Your task to perform on an android device: Search for alienware aurora on bestbuy, select the first entry, add it to the cart, then select checkout. Image 0: 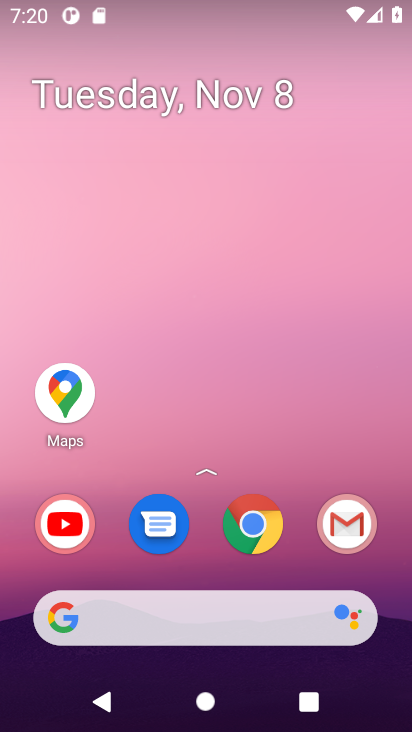
Step 0: click (236, 535)
Your task to perform on an android device: Search for alienware aurora on bestbuy, select the first entry, add it to the cart, then select checkout. Image 1: 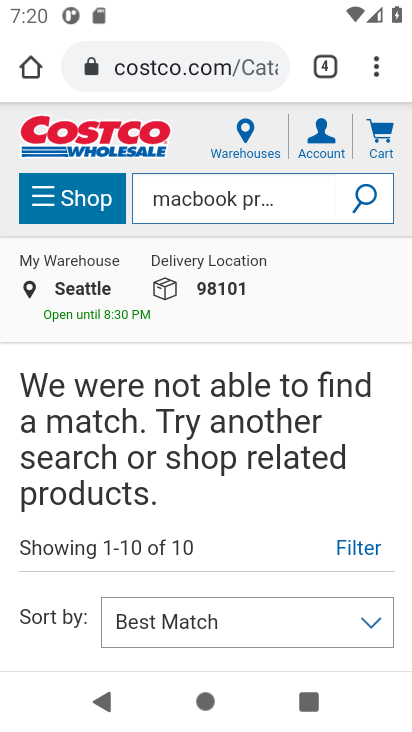
Step 1: click (199, 59)
Your task to perform on an android device: Search for alienware aurora on bestbuy, select the first entry, add it to the cart, then select checkout. Image 2: 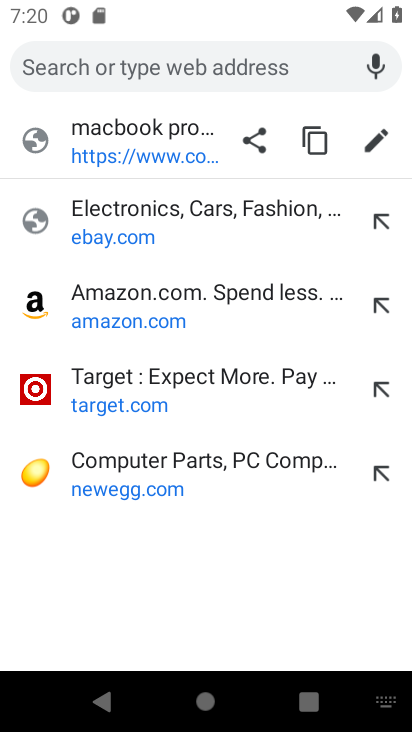
Step 2: type "bestbuy.com"
Your task to perform on an android device: Search for alienware aurora on bestbuy, select the first entry, add it to the cart, then select checkout. Image 3: 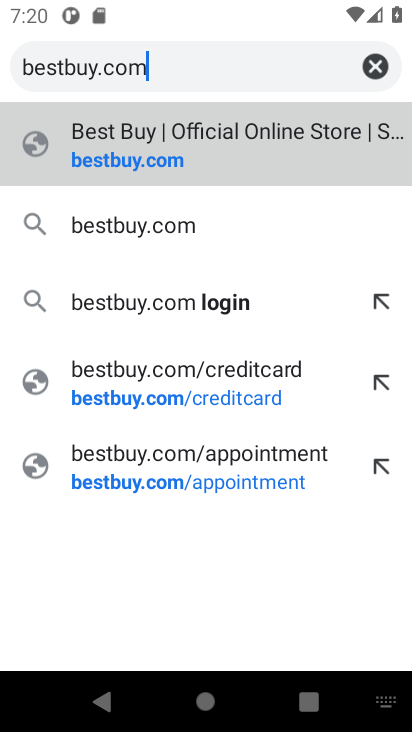
Step 3: click (119, 161)
Your task to perform on an android device: Search for alienware aurora on bestbuy, select the first entry, add it to the cart, then select checkout. Image 4: 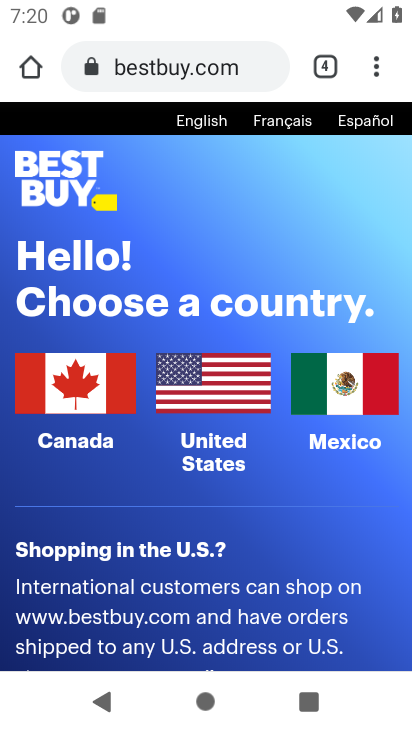
Step 4: click (192, 402)
Your task to perform on an android device: Search for alienware aurora on bestbuy, select the first entry, add it to the cart, then select checkout. Image 5: 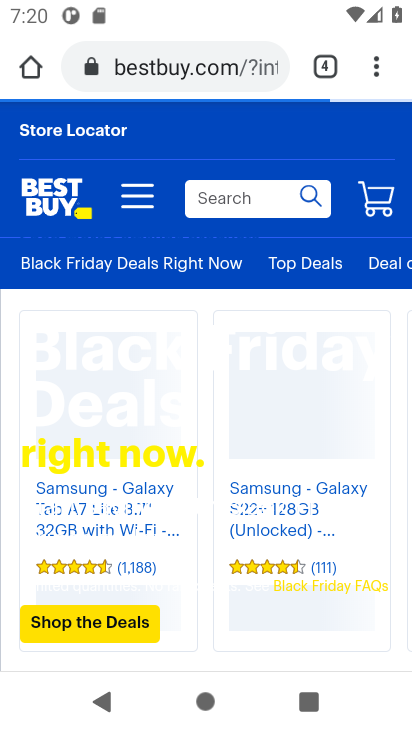
Step 5: click (221, 205)
Your task to perform on an android device: Search for alienware aurora on bestbuy, select the first entry, add it to the cart, then select checkout. Image 6: 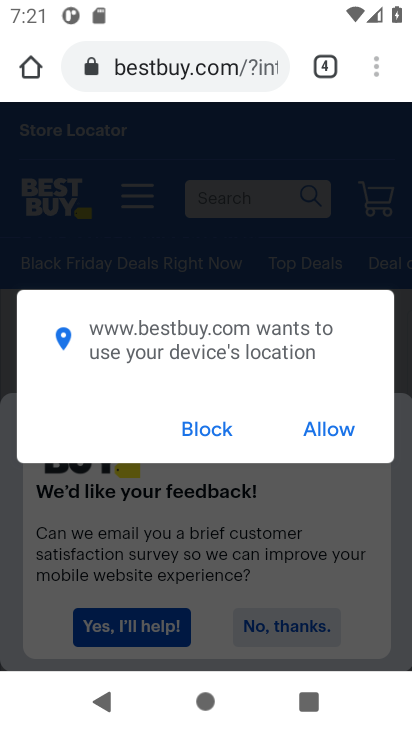
Step 6: type "alienware aurora "
Your task to perform on an android device: Search for alienware aurora on bestbuy, select the first entry, add it to the cart, then select checkout. Image 7: 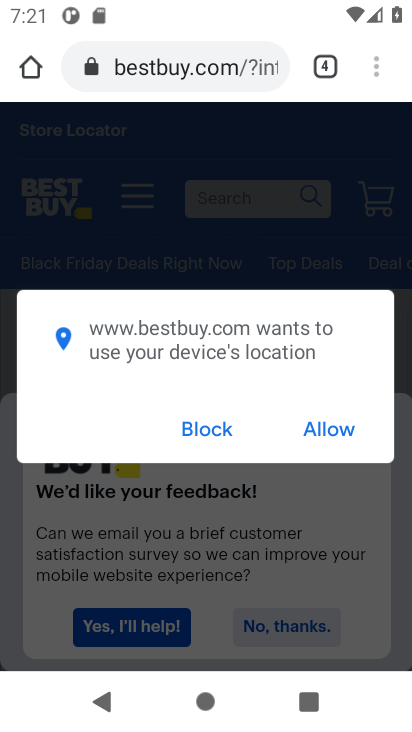
Step 7: click (207, 428)
Your task to perform on an android device: Search for alienware aurora on bestbuy, select the first entry, add it to the cart, then select checkout. Image 8: 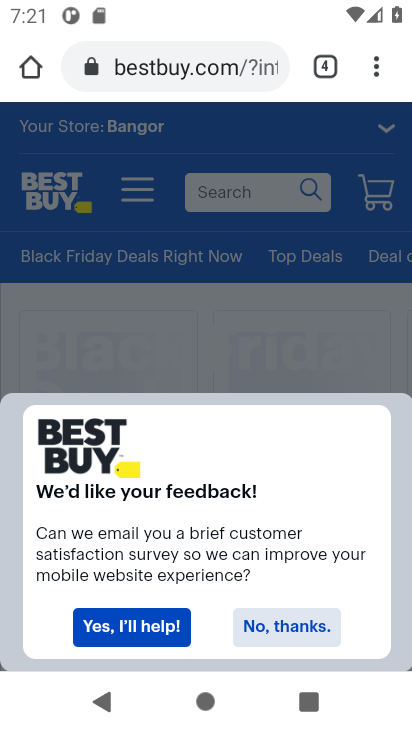
Step 8: click (210, 191)
Your task to perform on an android device: Search for alienware aurora on bestbuy, select the first entry, add it to the cart, then select checkout. Image 9: 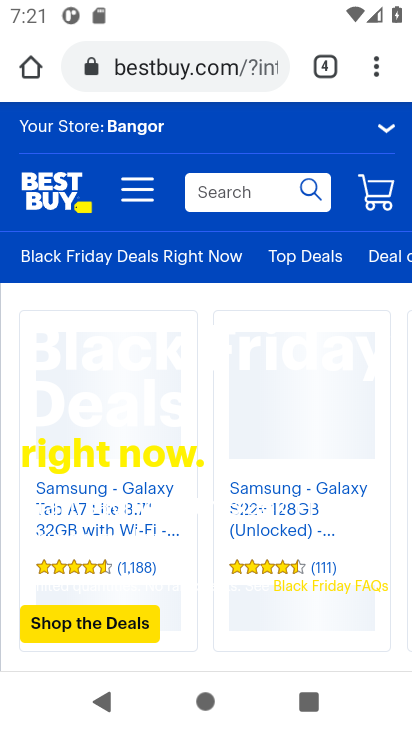
Step 9: click (197, 181)
Your task to perform on an android device: Search for alienware aurora on bestbuy, select the first entry, add it to the cart, then select checkout. Image 10: 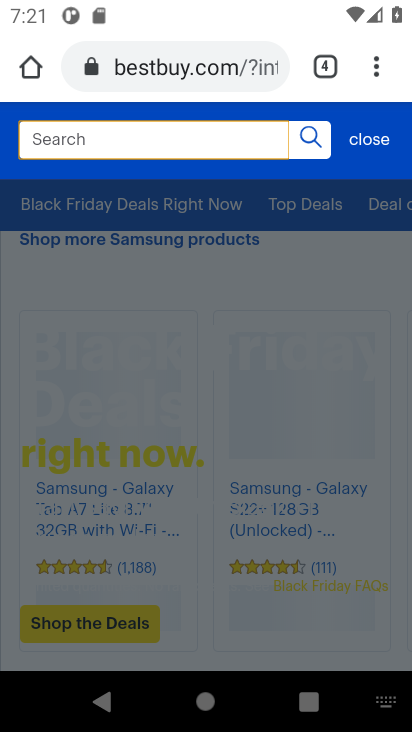
Step 10: type "alienware aurora "
Your task to perform on an android device: Search for alienware aurora on bestbuy, select the first entry, add it to the cart, then select checkout. Image 11: 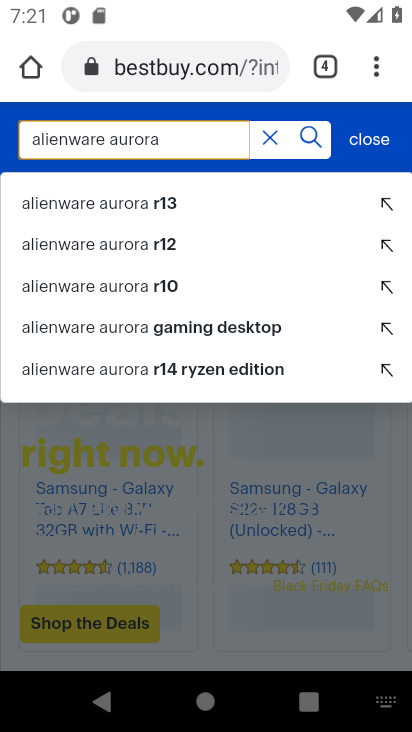
Step 11: click (302, 135)
Your task to perform on an android device: Search for alienware aurora on bestbuy, select the first entry, add it to the cart, then select checkout. Image 12: 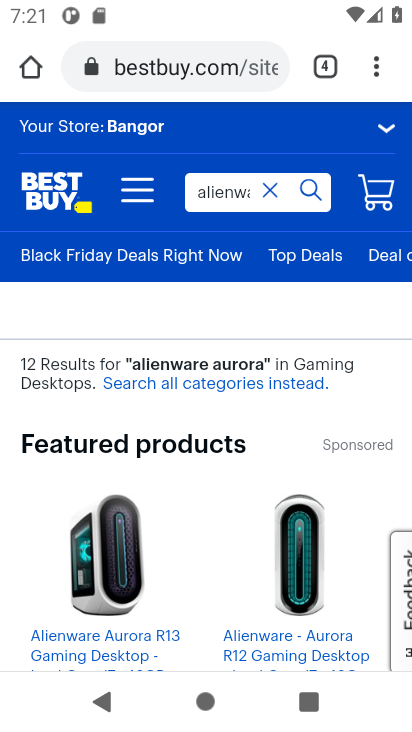
Step 12: click (99, 572)
Your task to perform on an android device: Search for alienware aurora on bestbuy, select the first entry, add it to the cart, then select checkout. Image 13: 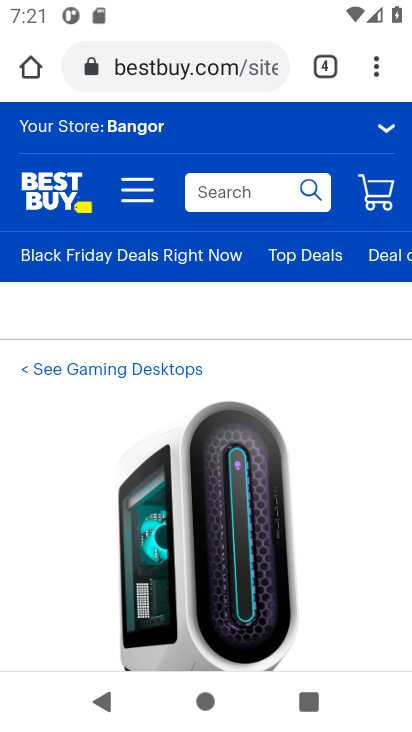
Step 13: drag from (201, 581) to (183, 111)
Your task to perform on an android device: Search for alienware aurora on bestbuy, select the first entry, add it to the cart, then select checkout. Image 14: 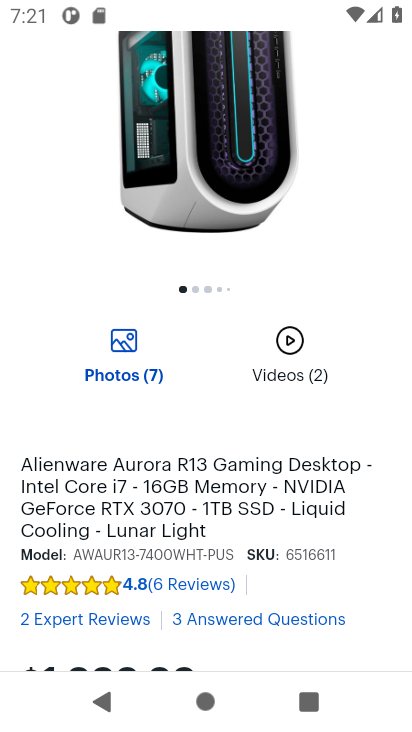
Step 14: drag from (188, 514) to (176, 190)
Your task to perform on an android device: Search for alienware aurora on bestbuy, select the first entry, add it to the cart, then select checkout. Image 15: 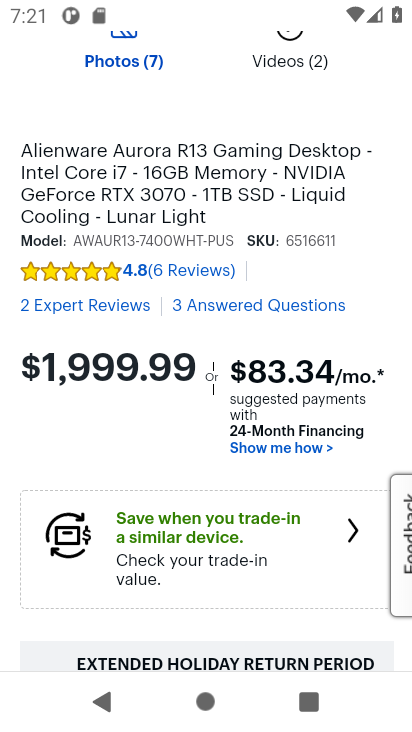
Step 15: drag from (175, 533) to (181, 233)
Your task to perform on an android device: Search for alienware aurora on bestbuy, select the first entry, add it to the cart, then select checkout. Image 16: 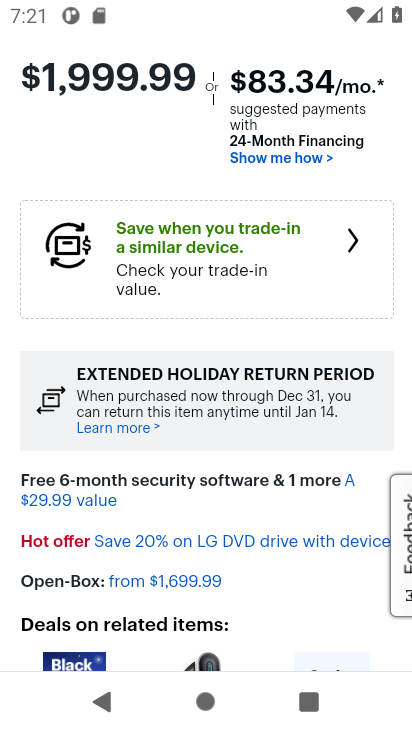
Step 16: drag from (178, 543) to (175, 229)
Your task to perform on an android device: Search for alienware aurora on bestbuy, select the first entry, add it to the cart, then select checkout. Image 17: 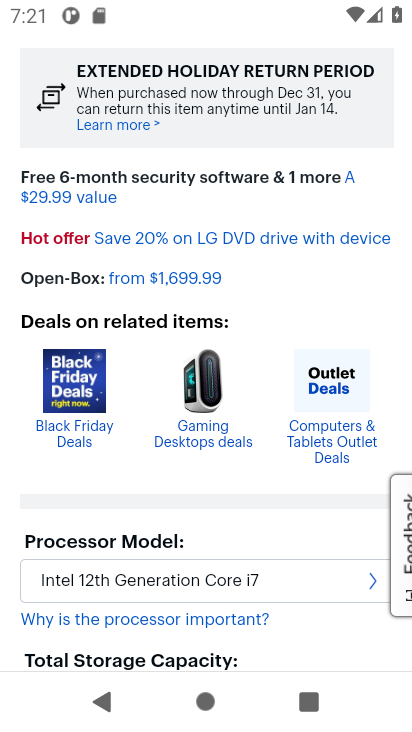
Step 17: drag from (197, 527) to (205, 284)
Your task to perform on an android device: Search for alienware aurora on bestbuy, select the first entry, add it to the cart, then select checkout. Image 18: 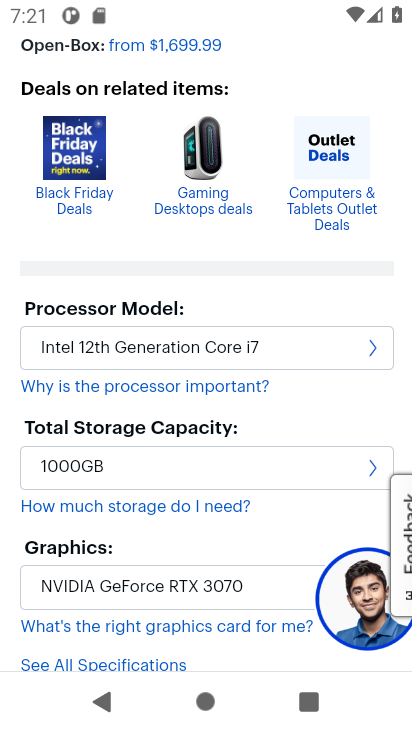
Step 18: drag from (199, 519) to (186, 161)
Your task to perform on an android device: Search for alienware aurora on bestbuy, select the first entry, add it to the cart, then select checkout. Image 19: 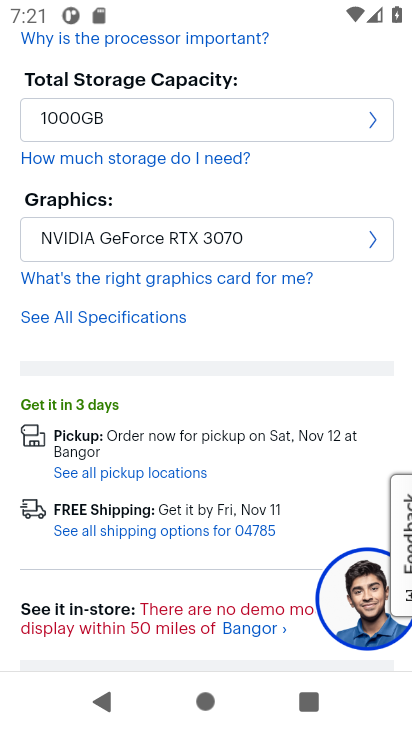
Step 19: drag from (196, 490) to (186, 209)
Your task to perform on an android device: Search for alienware aurora on bestbuy, select the first entry, add it to the cart, then select checkout. Image 20: 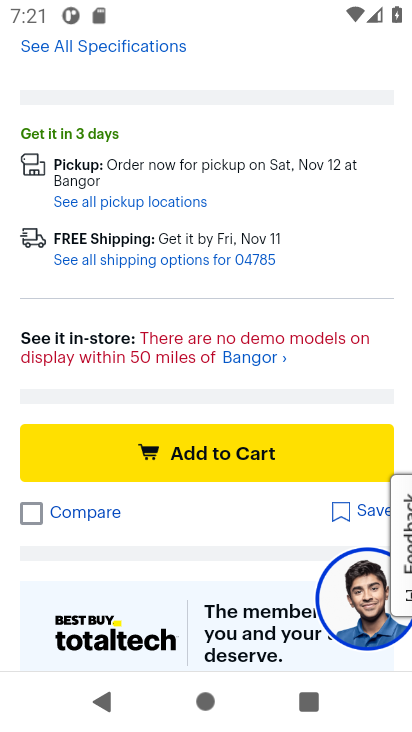
Step 20: click (206, 448)
Your task to perform on an android device: Search for alienware aurora on bestbuy, select the first entry, add it to the cart, then select checkout. Image 21: 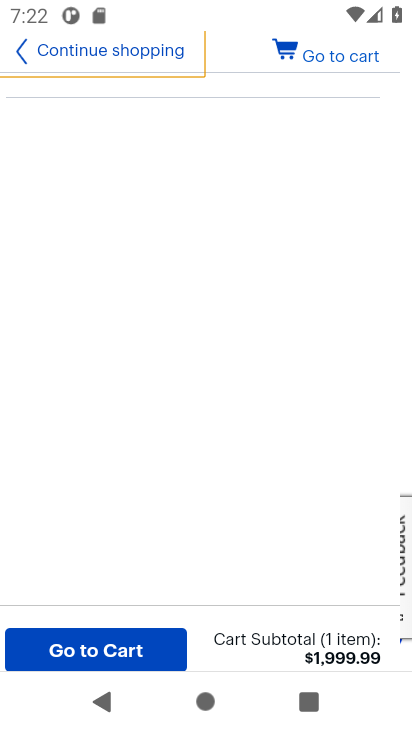
Step 21: click (341, 62)
Your task to perform on an android device: Search for alienware aurora on bestbuy, select the first entry, add it to the cart, then select checkout. Image 22: 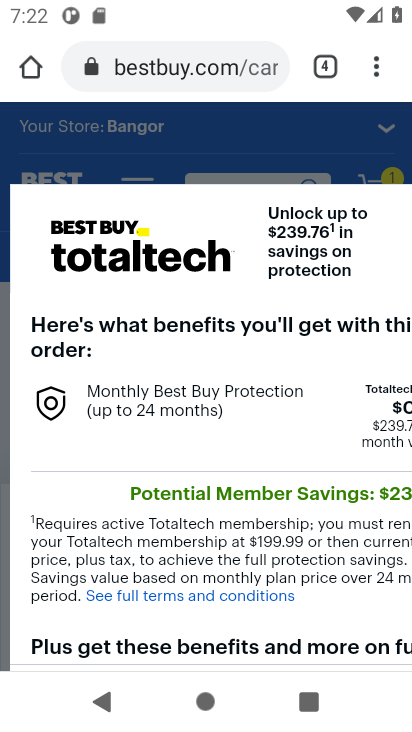
Step 22: drag from (348, 302) to (148, 309)
Your task to perform on an android device: Search for alienware aurora on bestbuy, select the first entry, add it to the cart, then select checkout. Image 23: 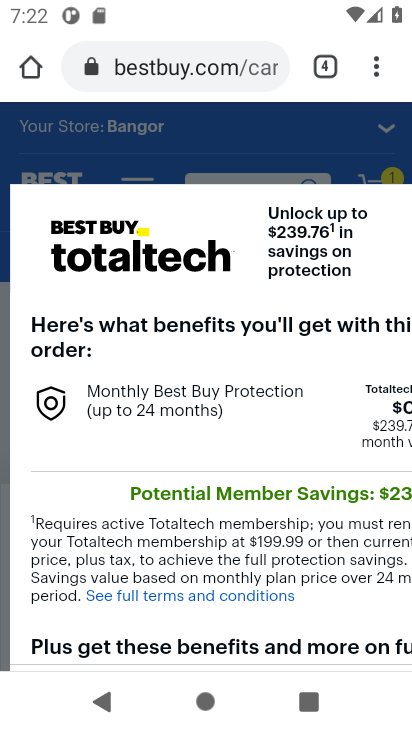
Step 23: drag from (387, 210) to (230, 245)
Your task to perform on an android device: Search for alienware aurora on bestbuy, select the first entry, add it to the cart, then select checkout. Image 24: 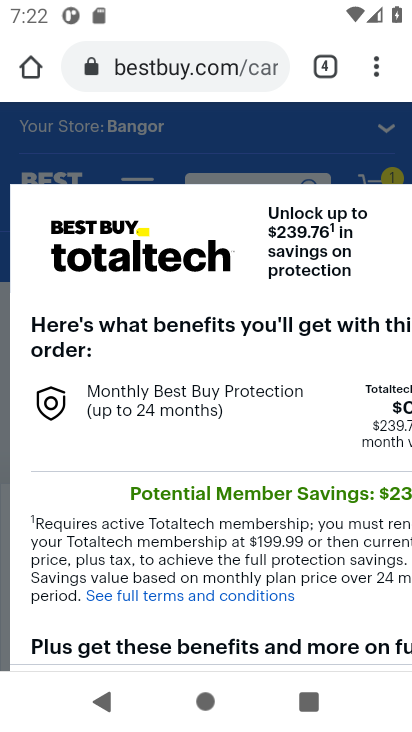
Step 24: drag from (375, 257) to (102, 286)
Your task to perform on an android device: Search for alienware aurora on bestbuy, select the first entry, add it to the cart, then select checkout. Image 25: 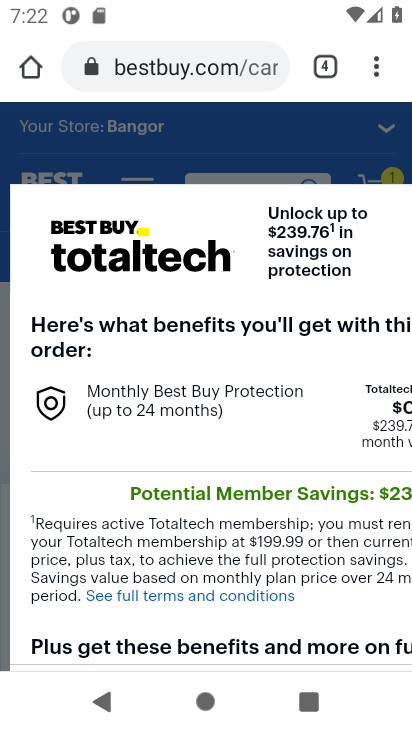
Step 25: drag from (214, 203) to (119, 214)
Your task to perform on an android device: Search for alienware aurora on bestbuy, select the first entry, add it to the cart, then select checkout. Image 26: 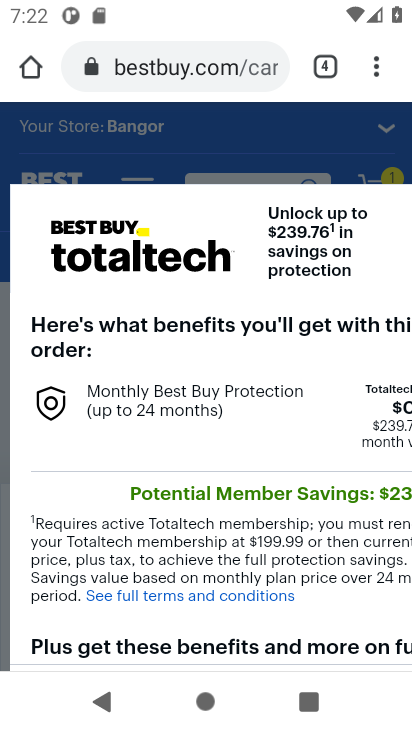
Step 26: drag from (376, 249) to (187, 259)
Your task to perform on an android device: Search for alienware aurora on bestbuy, select the first entry, add it to the cart, then select checkout. Image 27: 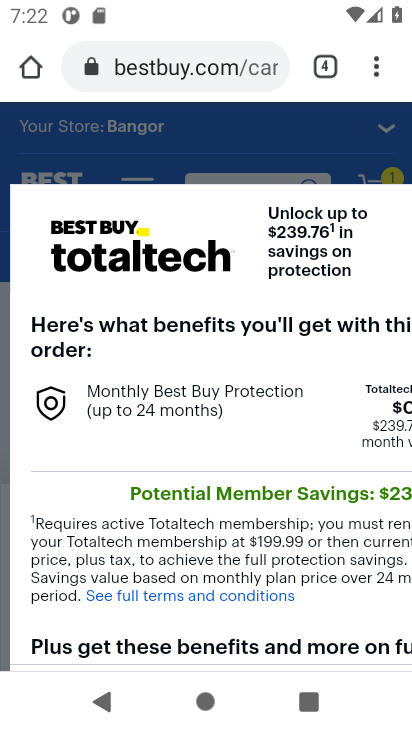
Step 27: click (396, 197)
Your task to perform on an android device: Search for alienware aurora on bestbuy, select the first entry, add it to the cart, then select checkout. Image 28: 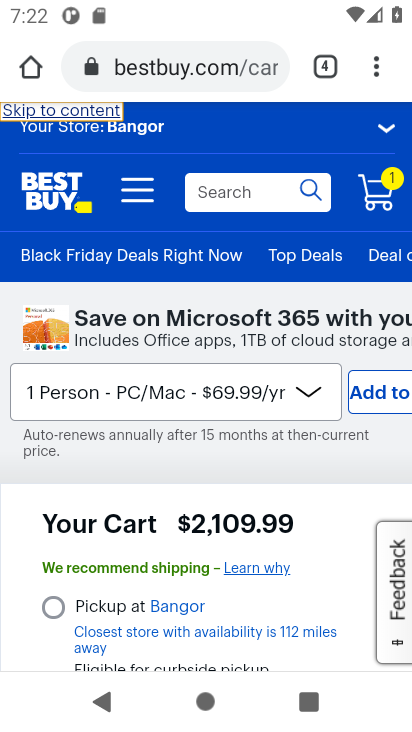
Step 28: click (379, 188)
Your task to perform on an android device: Search for alienware aurora on bestbuy, select the first entry, add it to the cart, then select checkout. Image 29: 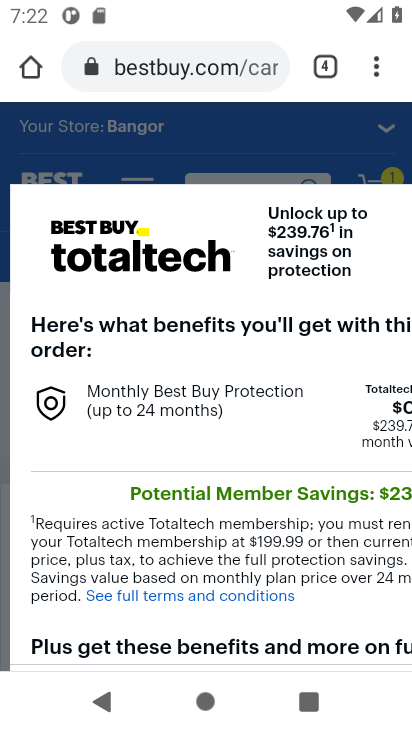
Step 29: drag from (364, 267) to (210, 287)
Your task to perform on an android device: Search for alienware aurora on bestbuy, select the first entry, add it to the cart, then select checkout. Image 30: 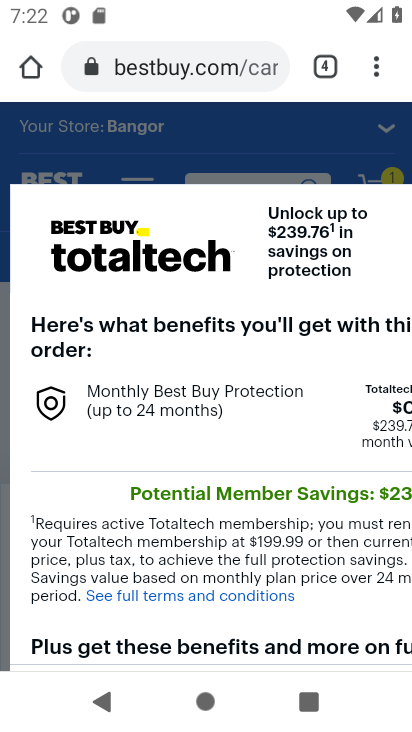
Step 30: drag from (300, 468) to (19, 453)
Your task to perform on an android device: Search for alienware aurora on bestbuy, select the first entry, add it to the cart, then select checkout. Image 31: 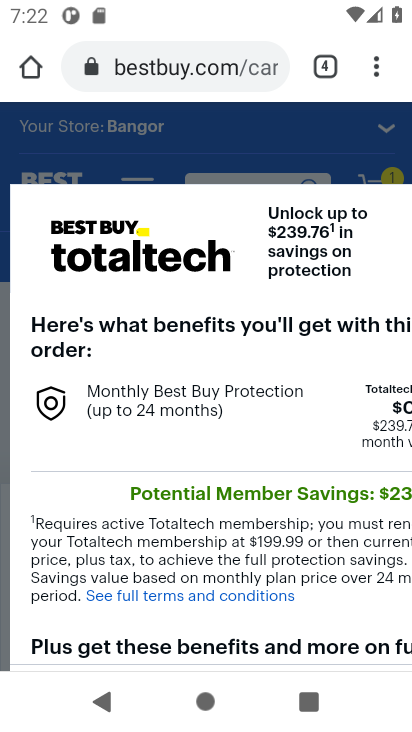
Step 31: drag from (350, 600) to (22, 515)
Your task to perform on an android device: Search for alienware aurora on bestbuy, select the first entry, add it to the cart, then select checkout. Image 32: 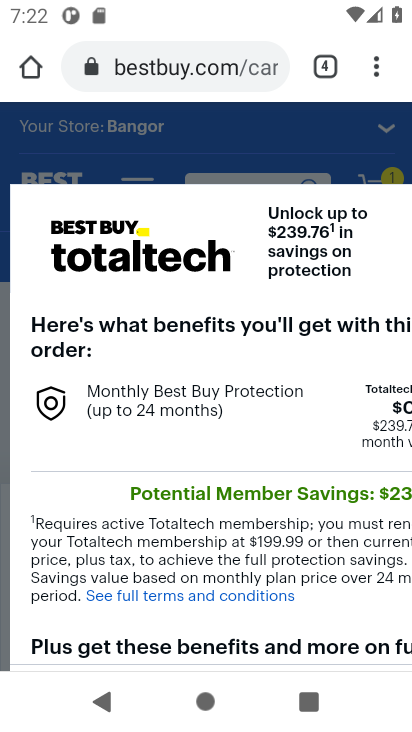
Step 32: drag from (319, 425) to (2, 398)
Your task to perform on an android device: Search for alienware aurora on bestbuy, select the first entry, add it to the cart, then select checkout. Image 33: 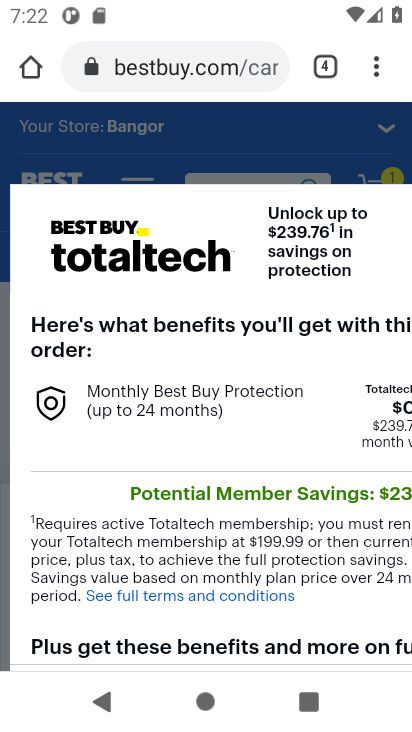
Step 33: drag from (368, 266) to (20, 270)
Your task to perform on an android device: Search for alienware aurora on bestbuy, select the first entry, add it to the cart, then select checkout. Image 34: 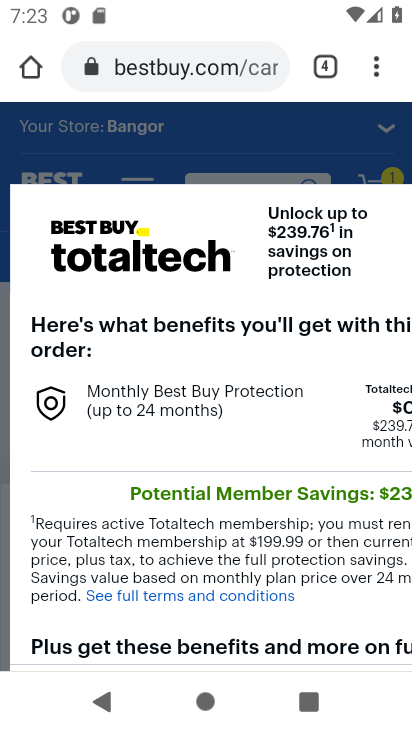
Step 34: drag from (225, 585) to (204, 265)
Your task to perform on an android device: Search for alienware aurora on bestbuy, select the first entry, add it to the cart, then select checkout. Image 35: 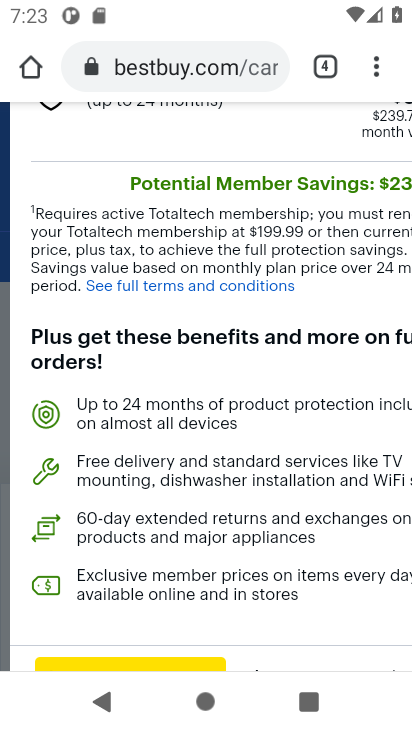
Step 35: drag from (200, 527) to (185, 208)
Your task to perform on an android device: Search for alienware aurora on bestbuy, select the first entry, add it to the cart, then select checkout. Image 36: 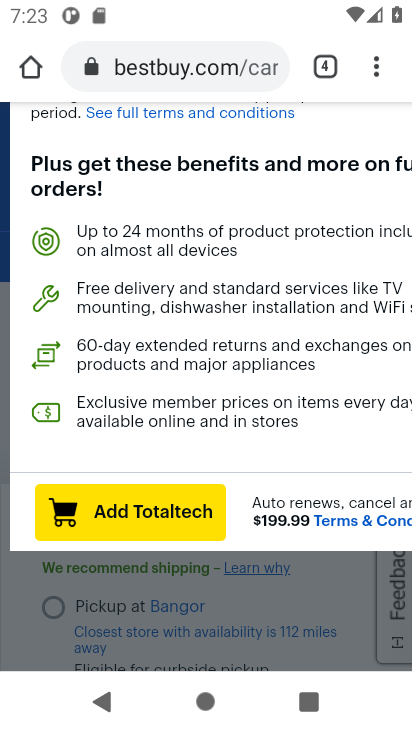
Step 36: drag from (271, 635) to (270, 247)
Your task to perform on an android device: Search for alienware aurora on bestbuy, select the first entry, add it to the cart, then select checkout. Image 37: 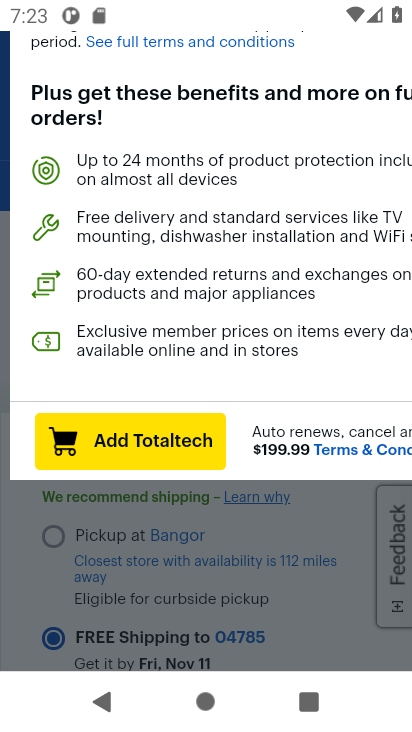
Step 37: click (344, 526)
Your task to perform on an android device: Search for alienware aurora on bestbuy, select the first entry, add it to the cart, then select checkout. Image 38: 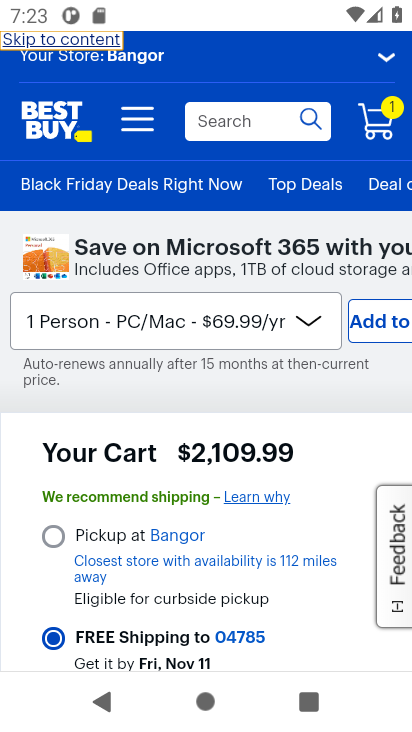
Step 38: drag from (258, 526) to (260, 227)
Your task to perform on an android device: Search for alienware aurora on bestbuy, select the first entry, add it to the cart, then select checkout. Image 39: 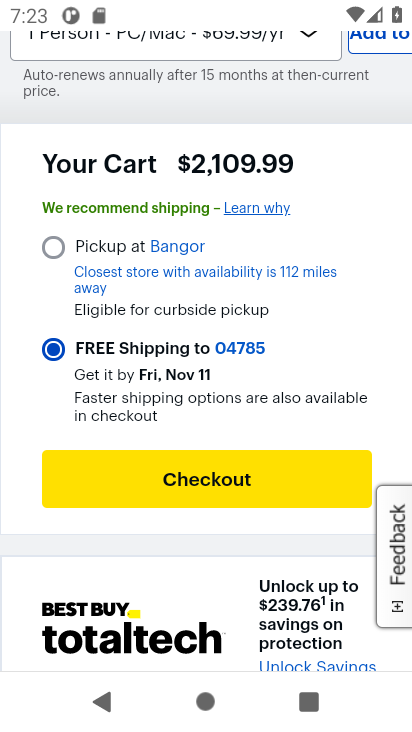
Step 39: click (201, 472)
Your task to perform on an android device: Search for alienware aurora on bestbuy, select the first entry, add it to the cart, then select checkout. Image 40: 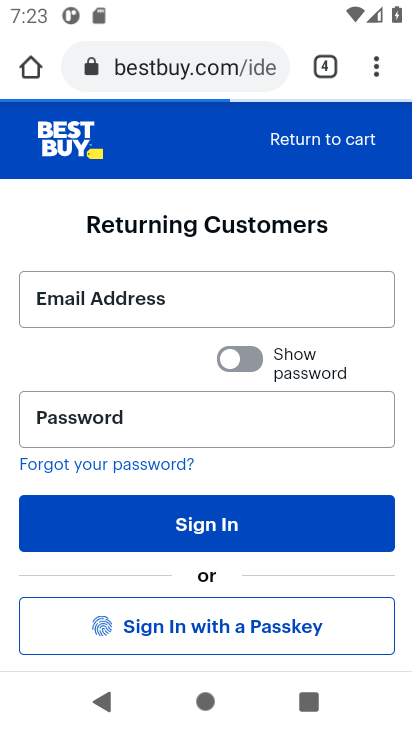
Step 40: task complete